Your task to perform on an android device: open a bookmark in the chrome app Image 0: 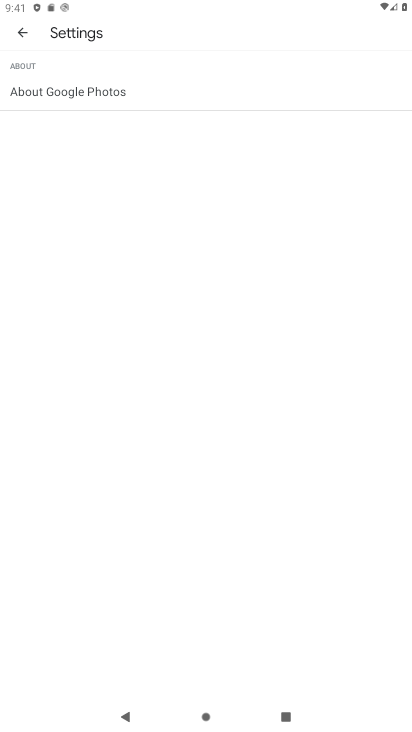
Step 0: press home button
Your task to perform on an android device: open a bookmark in the chrome app Image 1: 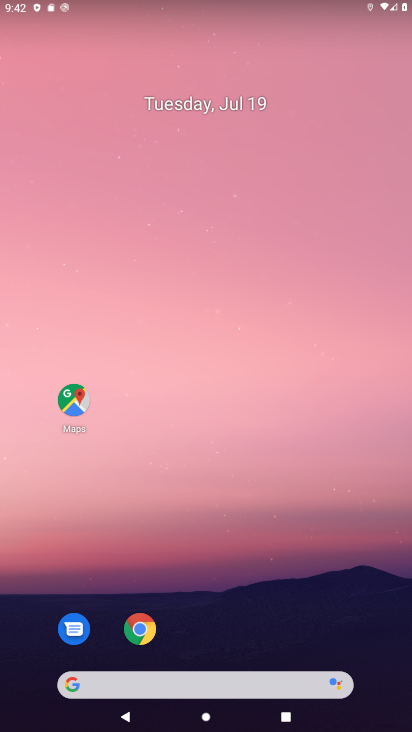
Step 1: click (139, 628)
Your task to perform on an android device: open a bookmark in the chrome app Image 2: 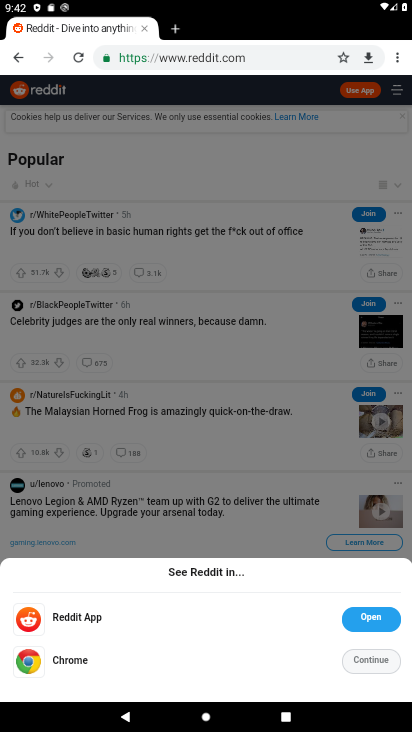
Step 2: click (395, 51)
Your task to perform on an android device: open a bookmark in the chrome app Image 3: 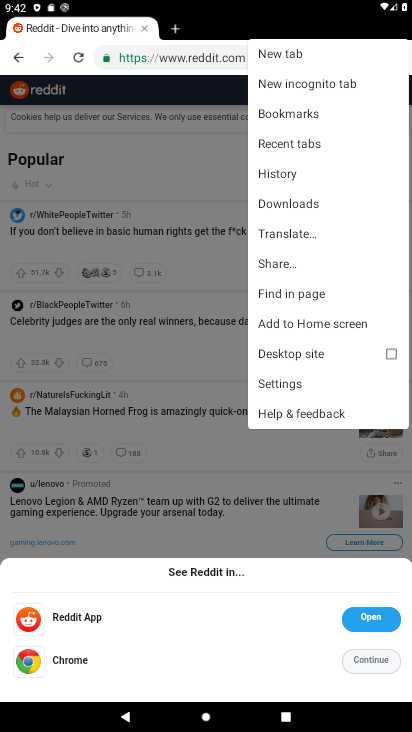
Step 3: click (290, 106)
Your task to perform on an android device: open a bookmark in the chrome app Image 4: 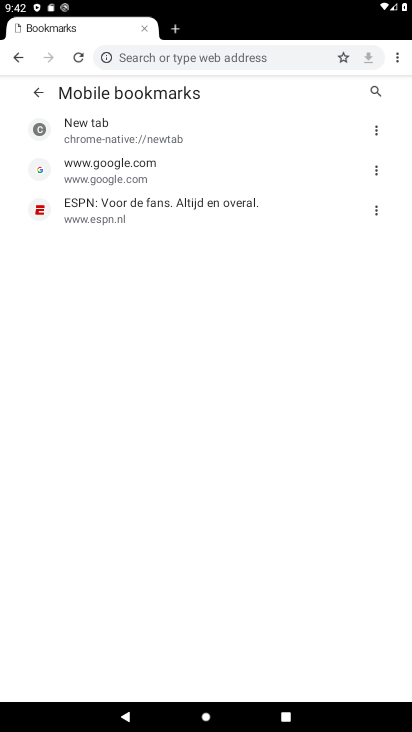
Step 4: click (103, 215)
Your task to perform on an android device: open a bookmark in the chrome app Image 5: 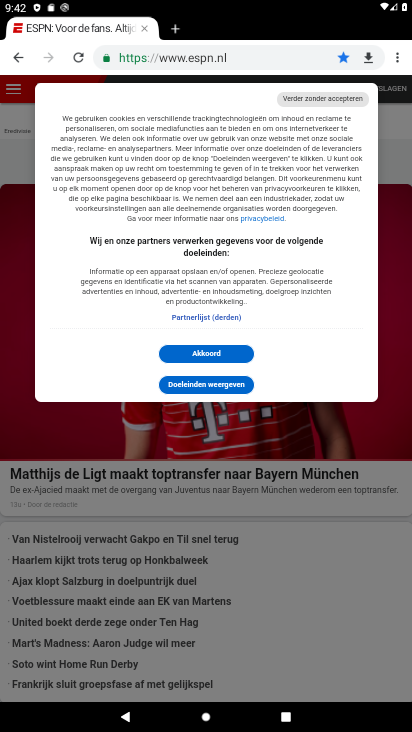
Step 5: task complete